Your task to perform on an android device: Do I have any events today? Image 0: 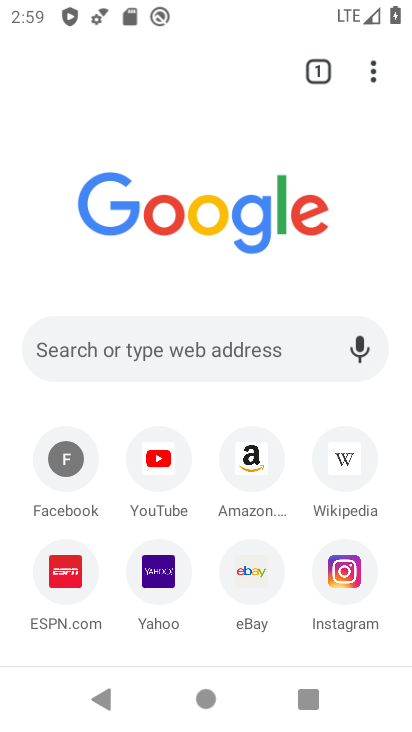
Step 0: press home button
Your task to perform on an android device: Do I have any events today? Image 1: 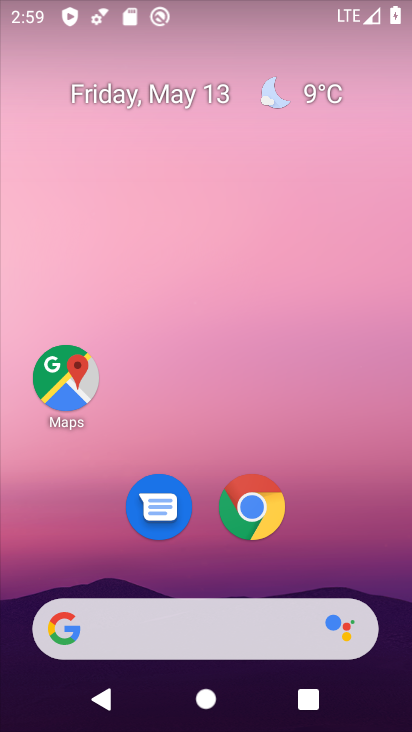
Step 1: drag from (247, 705) to (259, 224)
Your task to perform on an android device: Do I have any events today? Image 2: 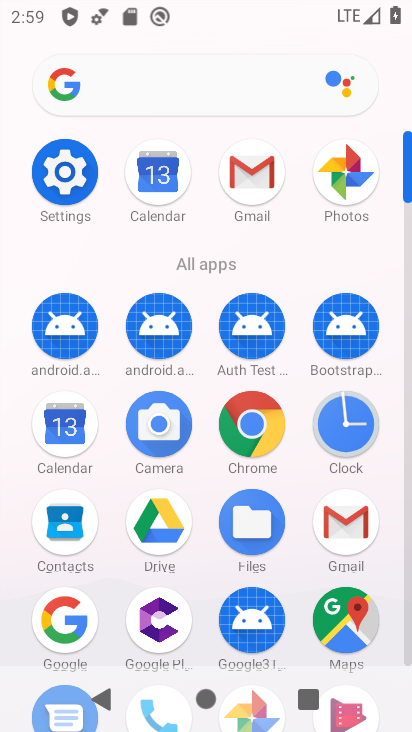
Step 2: click (167, 177)
Your task to perform on an android device: Do I have any events today? Image 3: 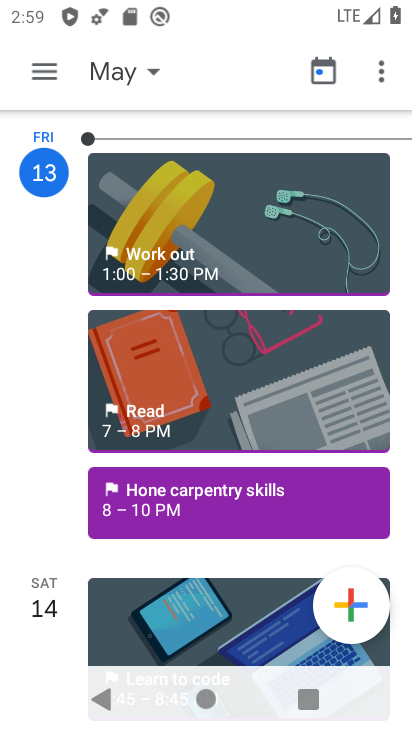
Step 3: click (36, 63)
Your task to perform on an android device: Do I have any events today? Image 4: 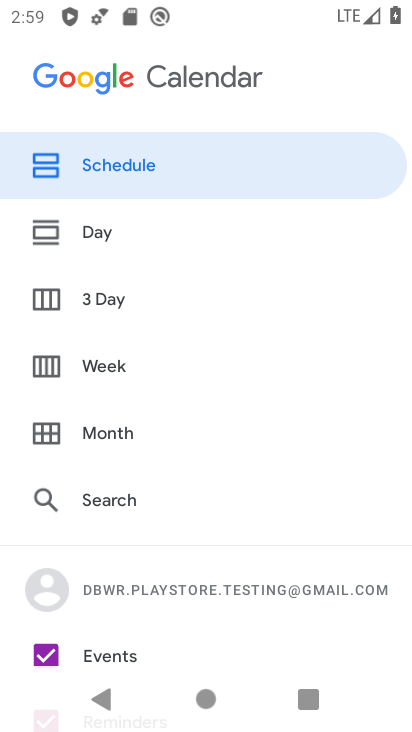
Step 4: click (161, 170)
Your task to perform on an android device: Do I have any events today? Image 5: 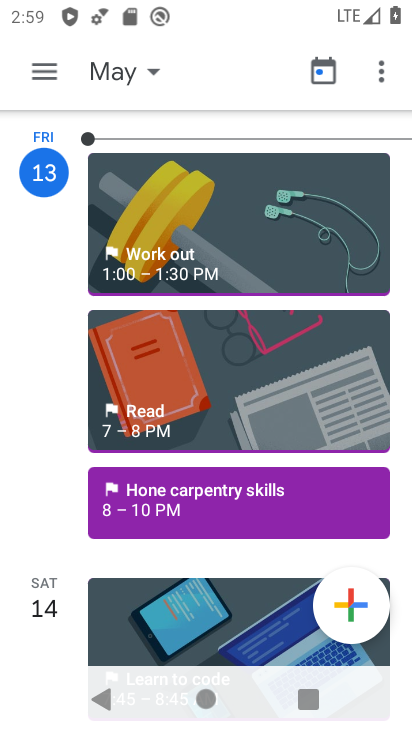
Step 5: task complete